Your task to perform on an android device: Turn on the flashlight Image 0: 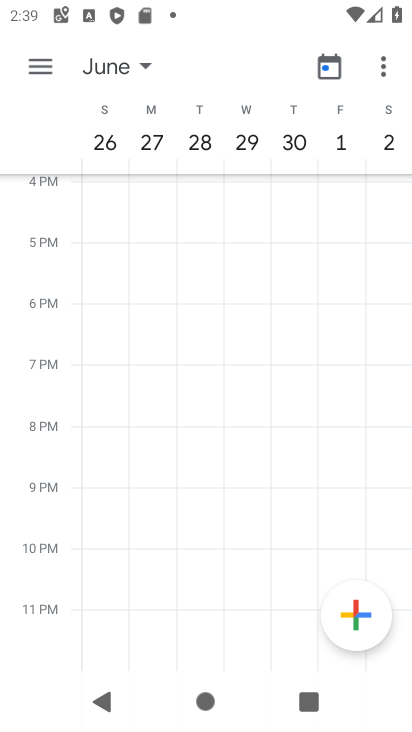
Step 0: press home button
Your task to perform on an android device: Turn on the flashlight Image 1: 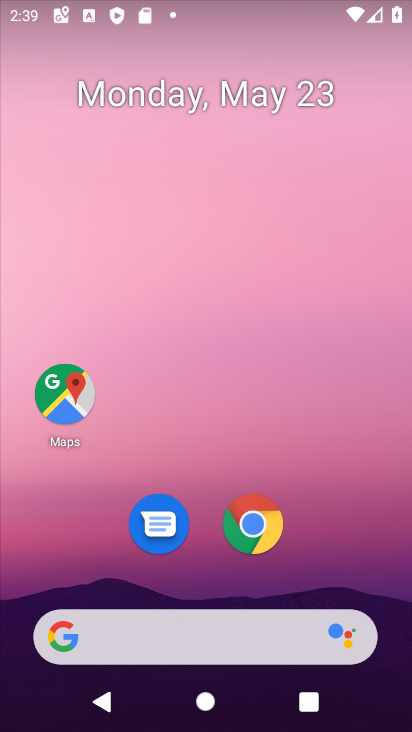
Step 1: drag from (227, 472) to (235, 26)
Your task to perform on an android device: Turn on the flashlight Image 2: 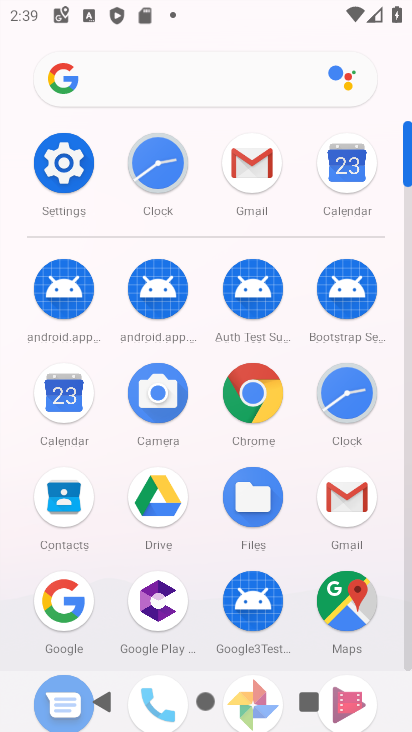
Step 2: click (81, 163)
Your task to perform on an android device: Turn on the flashlight Image 3: 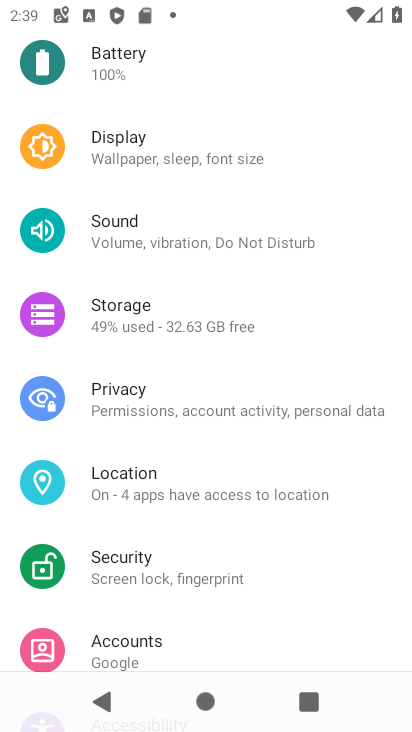
Step 3: drag from (226, 140) to (277, 662)
Your task to perform on an android device: Turn on the flashlight Image 4: 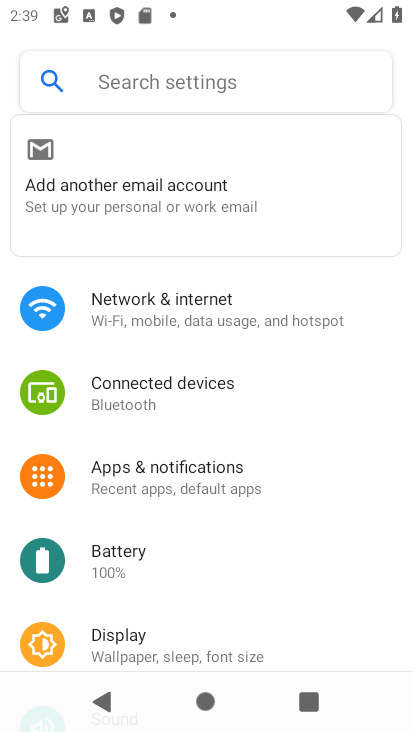
Step 4: click (245, 77)
Your task to perform on an android device: Turn on the flashlight Image 5: 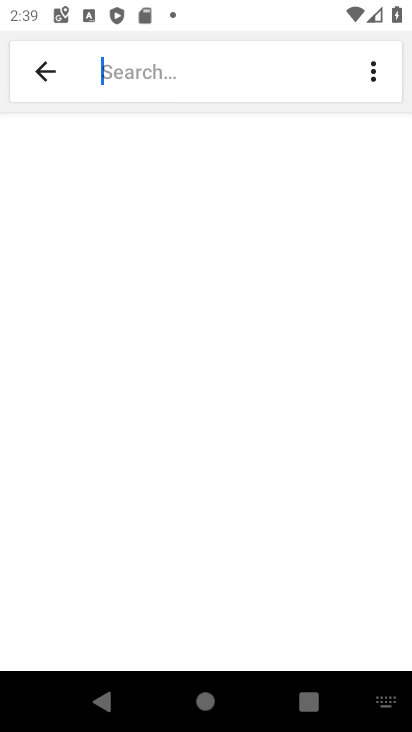
Step 5: type "Flashlight"
Your task to perform on an android device: Turn on the flashlight Image 6: 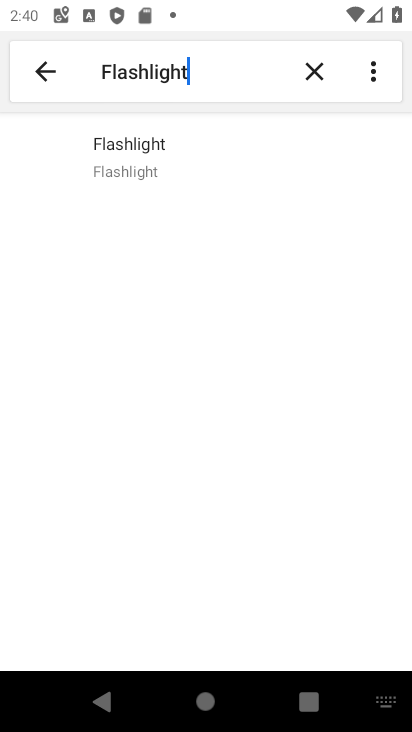
Step 6: click (139, 164)
Your task to perform on an android device: Turn on the flashlight Image 7: 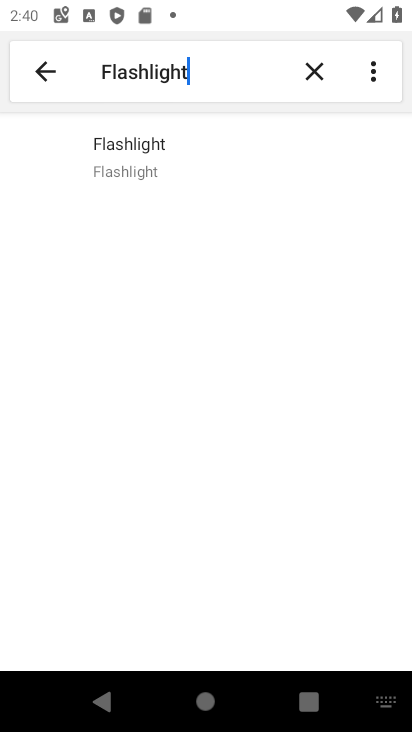
Step 7: task complete